Your task to perform on an android device: turn off picture-in-picture Image 0: 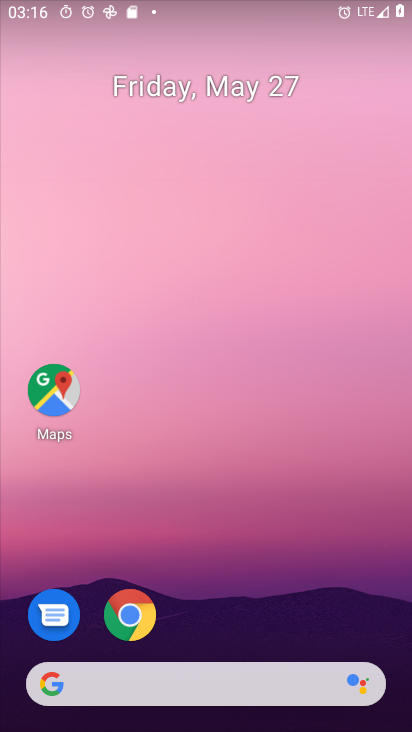
Step 0: drag from (347, 636) to (344, 172)
Your task to perform on an android device: turn off picture-in-picture Image 1: 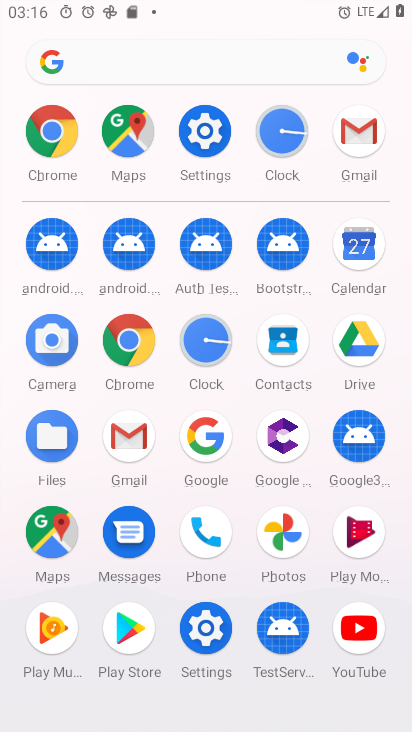
Step 1: click (213, 633)
Your task to perform on an android device: turn off picture-in-picture Image 2: 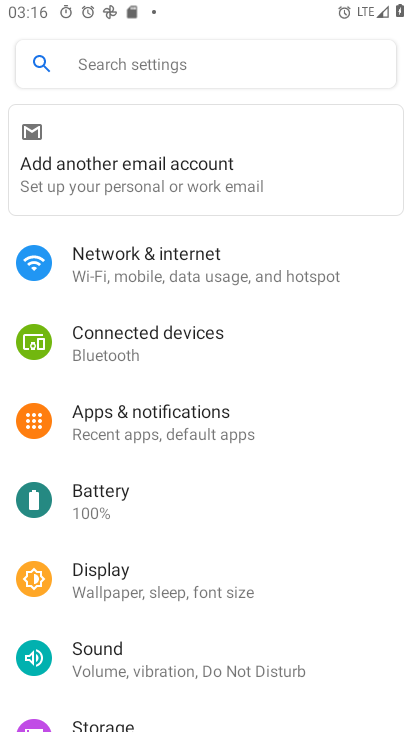
Step 2: click (249, 436)
Your task to perform on an android device: turn off picture-in-picture Image 3: 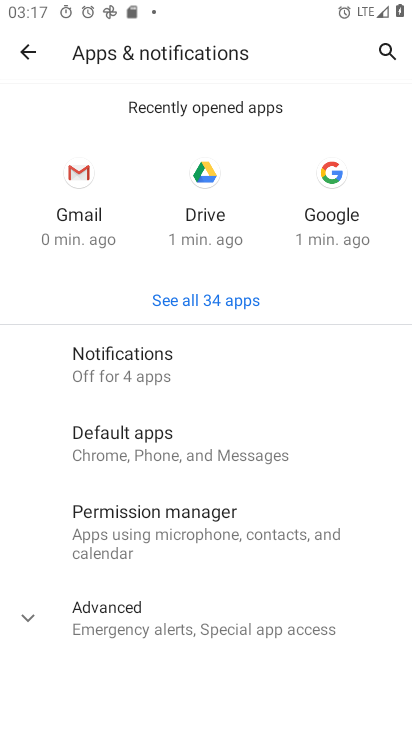
Step 3: click (196, 626)
Your task to perform on an android device: turn off picture-in-picture Image 4: 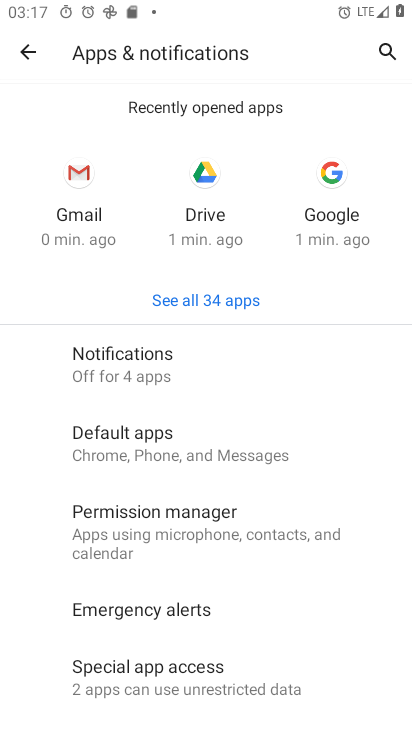
Step 4: click (173, 681)
Your task to perform on an android device: turn off picture-in-picture Image 5: 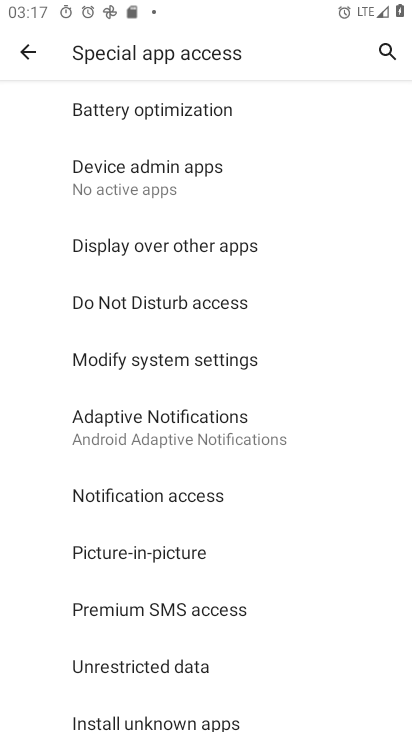
Step 5: click (268, 553)
Your task to perform on an android device: turn off picture-in-picture Image 6: 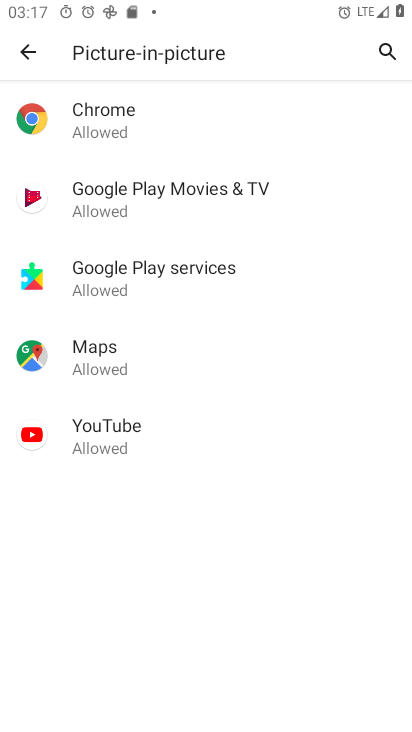
Step 6: click (130, 446)
Your task to perform on an android device: turn off picture-in-picture Image 7: 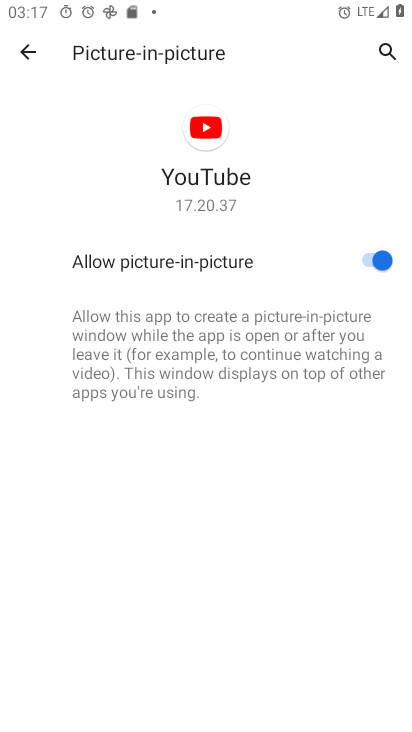
Step 7: click (379, 267)
Your task to perform on an android device: turn off picture-in-picture Image 8: 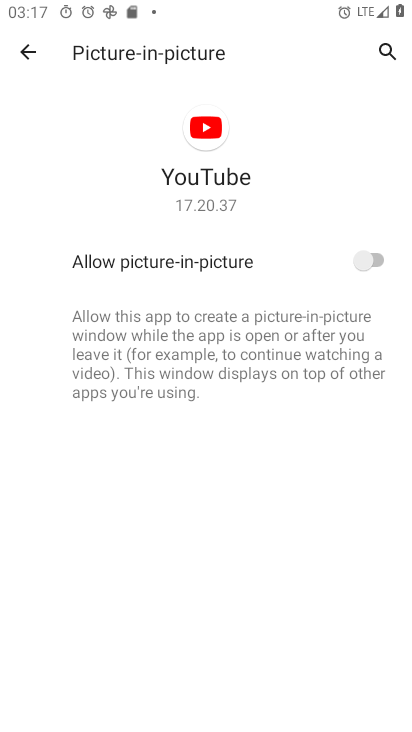
Step 8: task complete